Your task to perform on an android device: Go to ESPN.com Image 0: 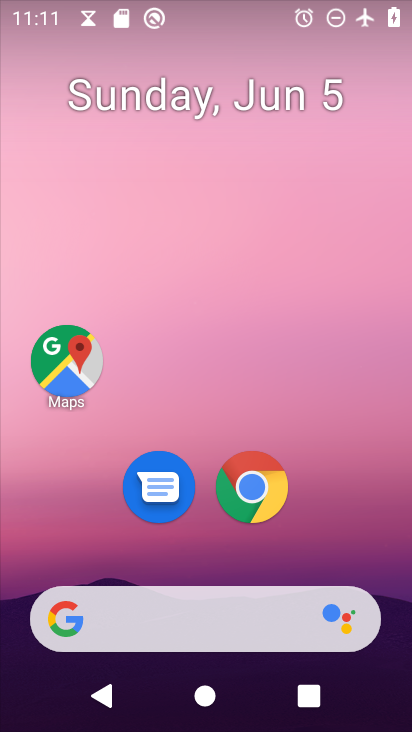
Step 0: click (271, 500)
Your task to perform on an android device: Go to ESPN.com Image 1: 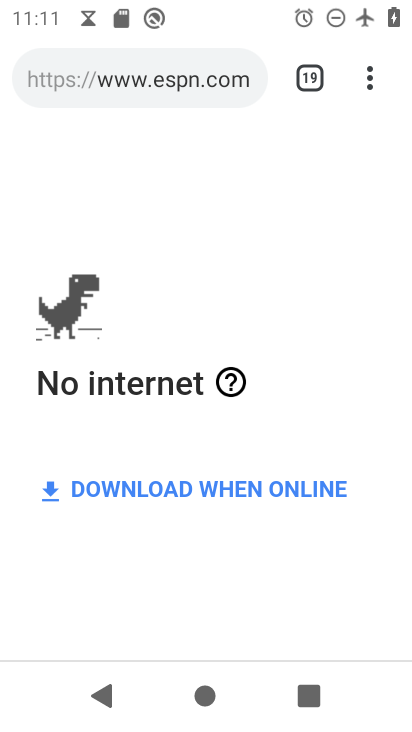
Step 1: click (372, 69)
Your task to perform on an android device: Go to ESPN.com Image 2: 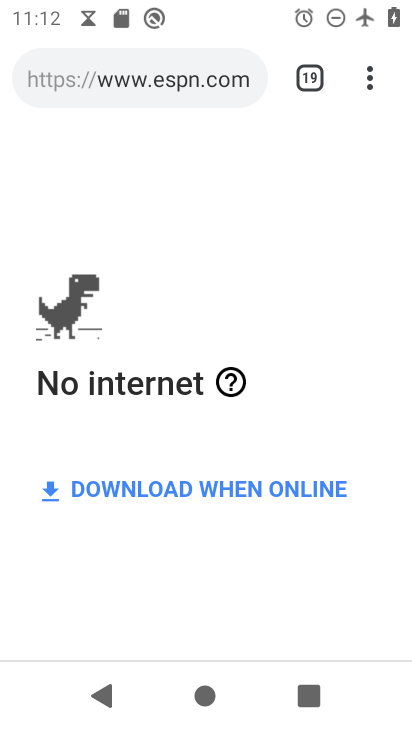
Step 2: click (370, 77)
Your task to perform on an android device: Go to ESPN.com Image 3: 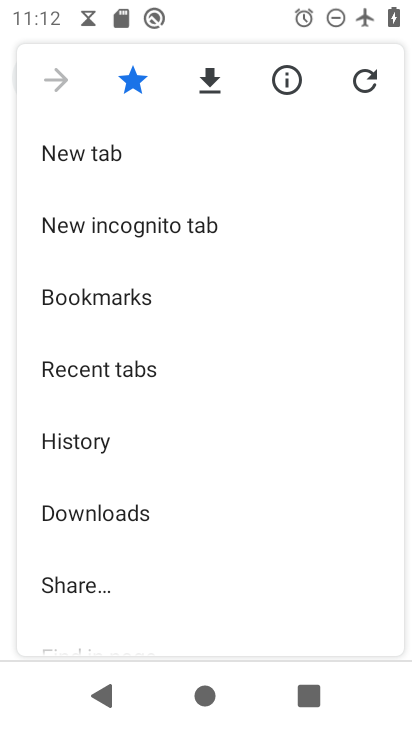
Step 3: click (125, 154)
Your task to perform on an android device: Go to ESPN.com Image 4: 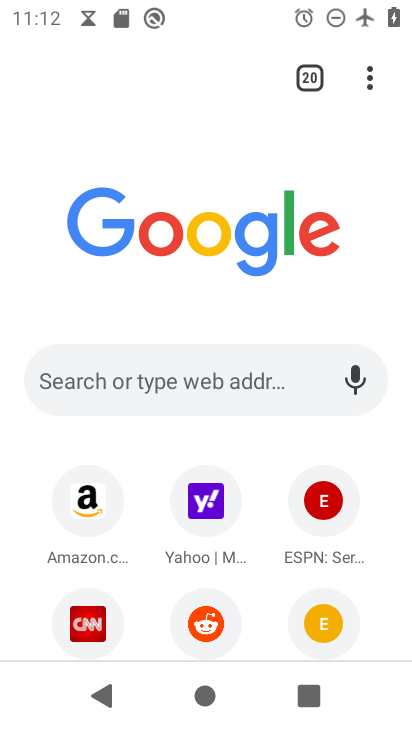
Step 4: click (314, 512)
Your task to perform on an android device: Go to ESPN.com Image 5: 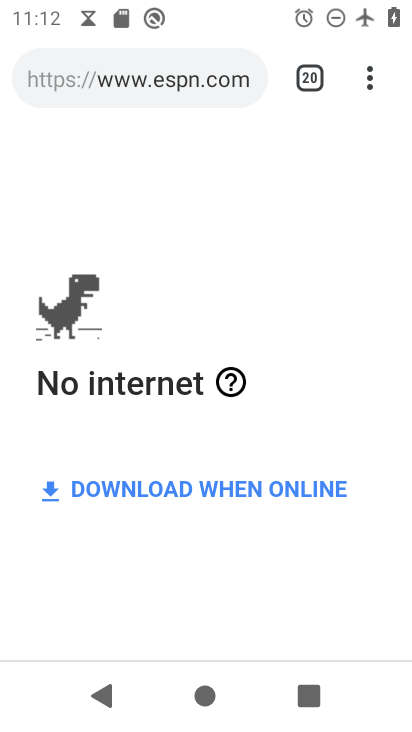
Step 5: task complete